Your task to perform on an android device: show emergency info Image 0: 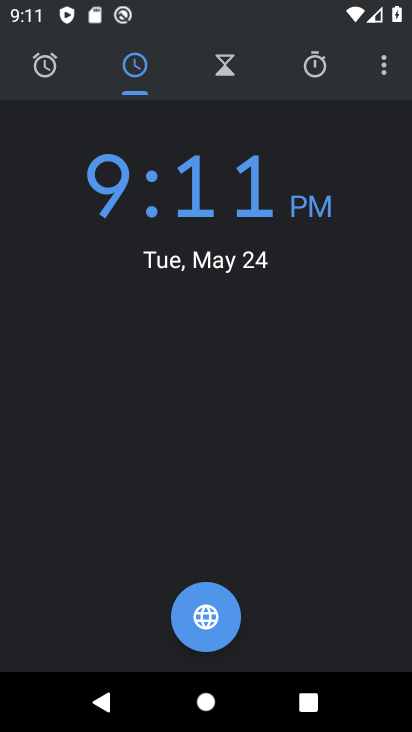
Step 0: press home button
Your task to perform on an android device: show emergency info Image 1: 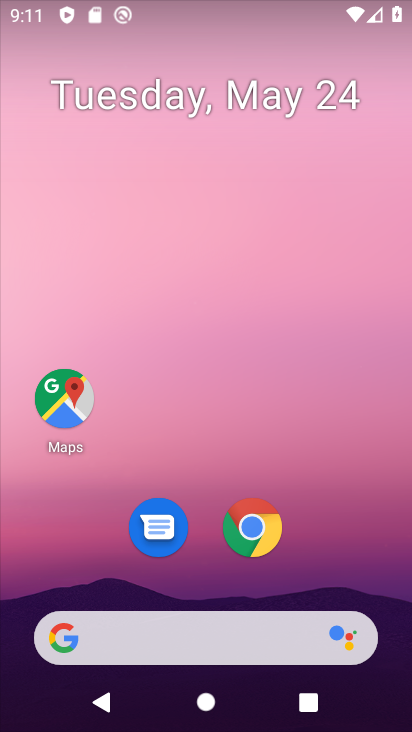
Step 1: drag from (200, 548) to (215, 22)
Your task to perform on an android device: show emergency info Image 2: 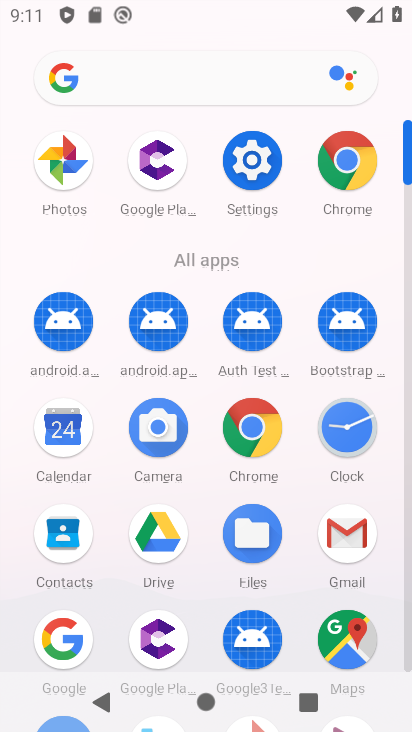
Step 2: click (249, 151)
Your task to perform on an android device: show emergency info Image 3: 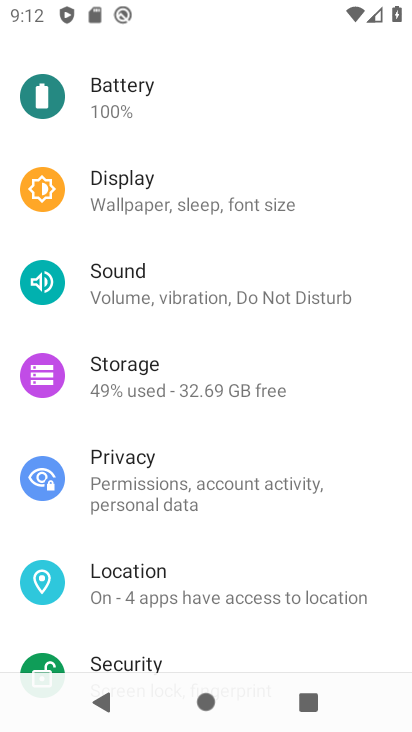
Step 3: drag from (200, 621) to (243, 59)
Your task to perform on an android device: show emergency info Image 4: 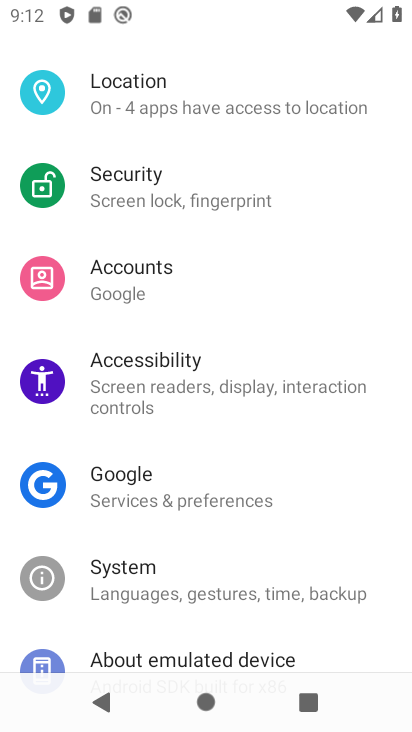
Step 4: drag from (205, 615) to (235, 226)
Your task to perform on an android device: show emergency info Image 5: 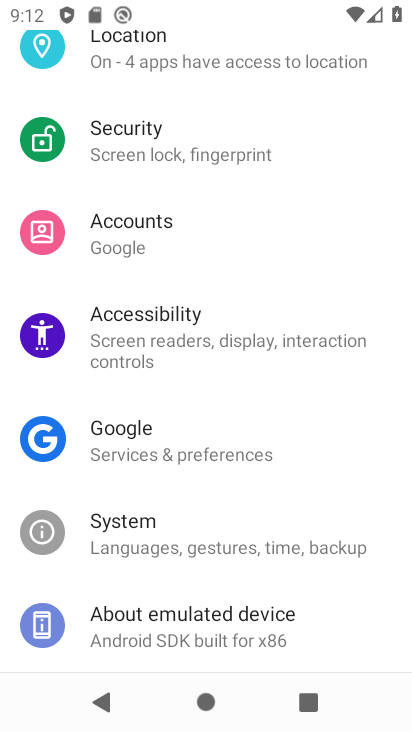
Step 5: click (185, 617)
Your task to perform on an android device: show emergency info Image 6: 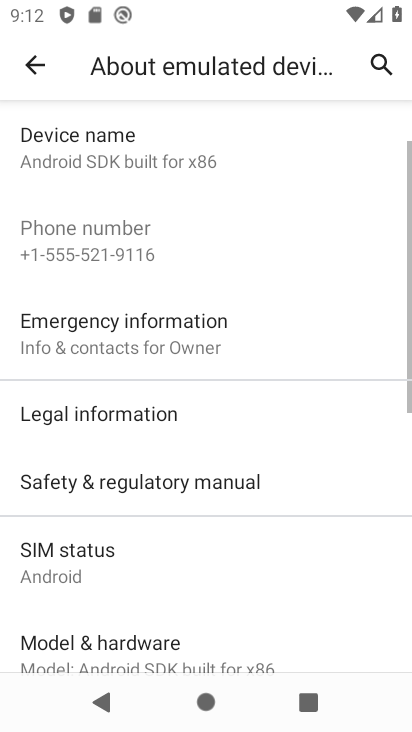
Step 6: click (163, 331)
Your task to perform on an android device: show emergency info Image 7: 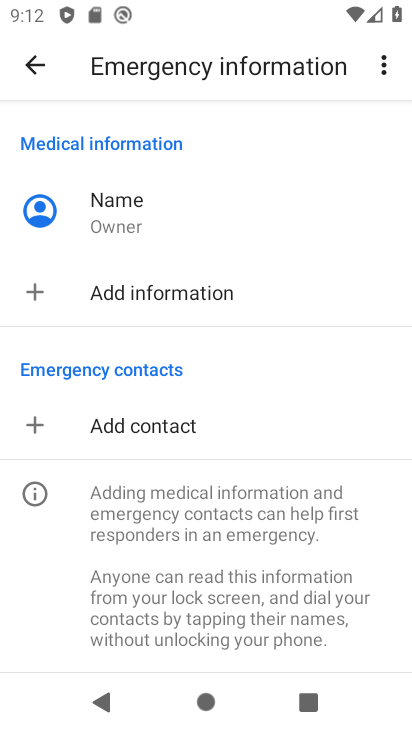
Step 7: task complete